Your task to perform on an android device: change text size in settings app Image 0: 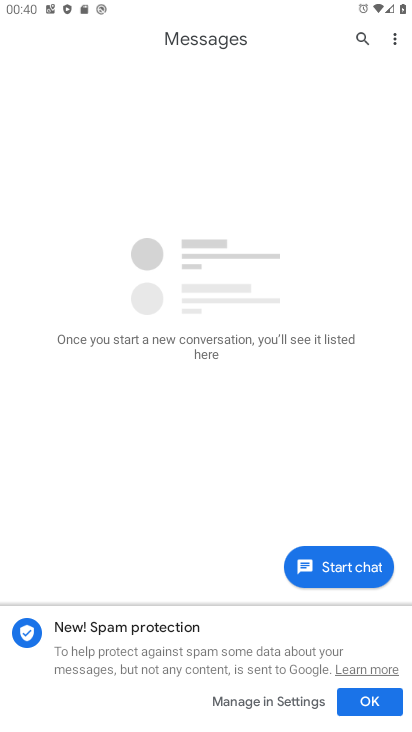
Step 0: press home button
Your task to perform on an android device: change text size in settings app Image 1: 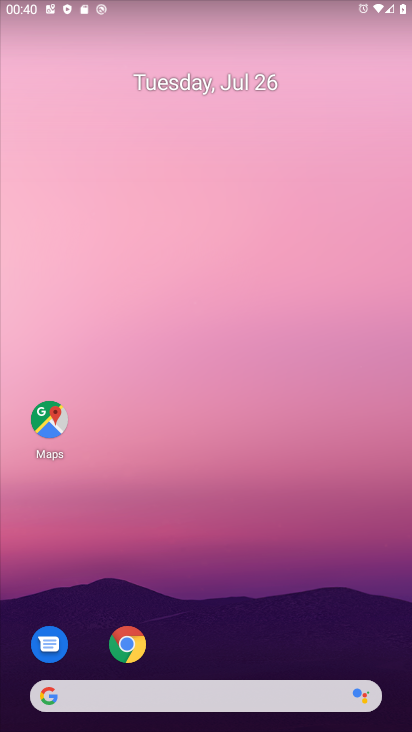
Step 1: drag from (202, 629) to (193, 138)
Your task to perform on an android device: change text size in settings app Image 2: 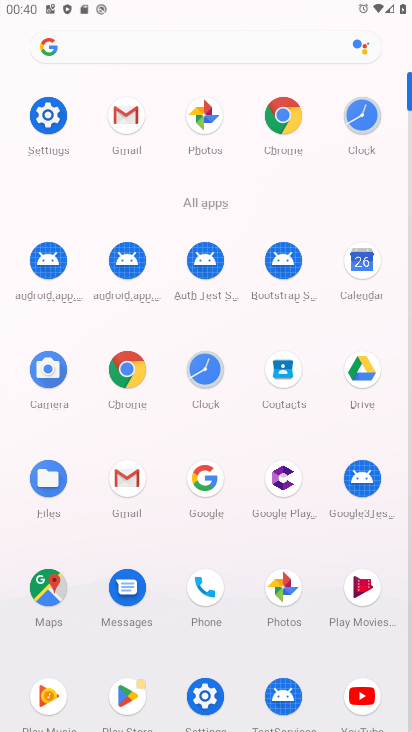
Step 2: click (48, 112)
Your task to perform on an android device: change text size in settings app Image 3: 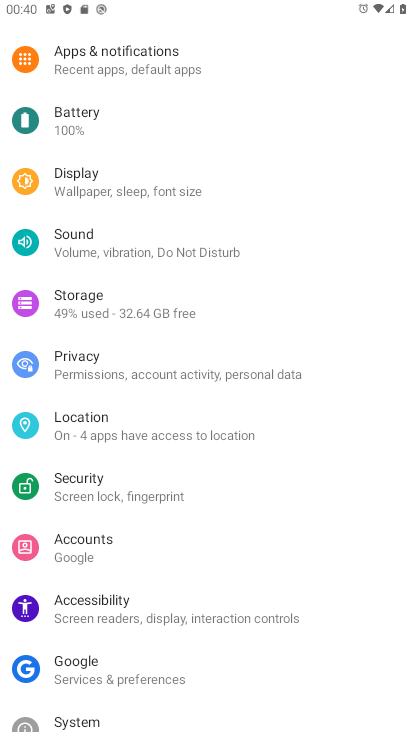
Step 3: drag from (122, 632) to (155, 217)
Your task to perform on an android device: change text size in settings app Image 4: 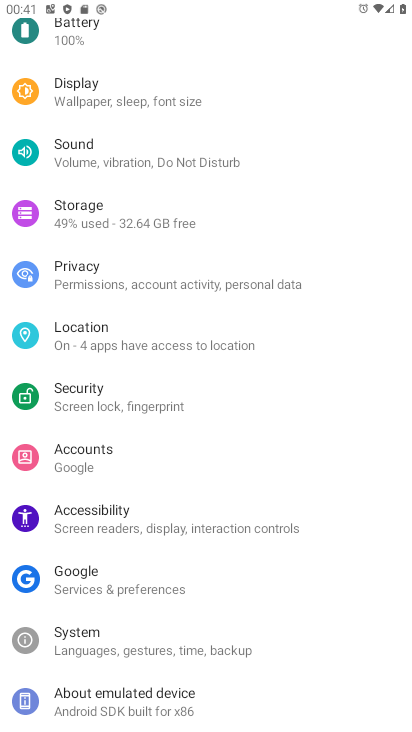
Step 4: click (134, 521)
Your task to perform on an android device: change text size in settings app Image 5: 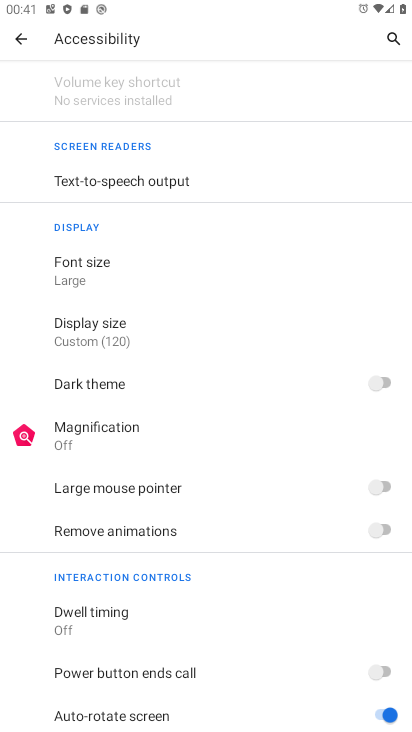
Step 5: click (73, 268)
Your task to perform on an android device: change text size in settings app Image 6: 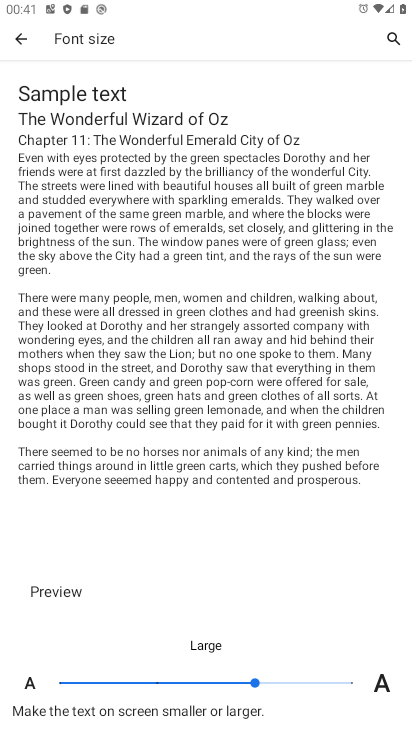
Step 6: click (353, 687)
Your task to perform on an android device: change text size in settings app Image 7: 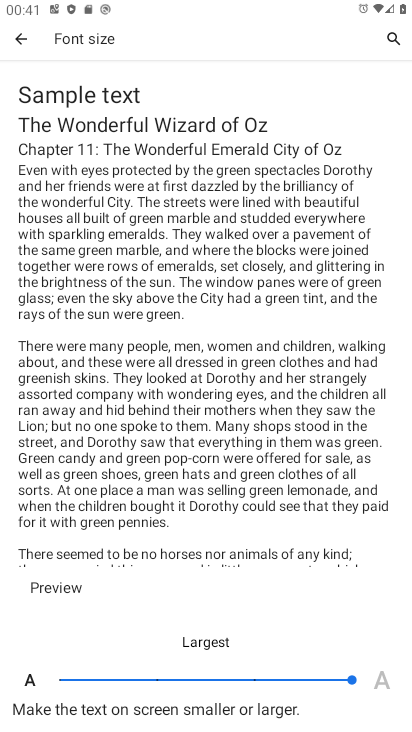
Step 7: task complete